Your task to perform on an android device: check battery use Image 0: 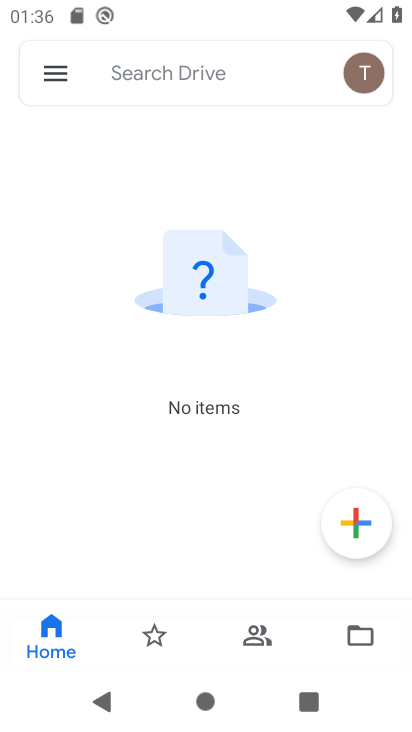
Step 0: press home button
Your task to perform on an android device: check battery use Image 1: 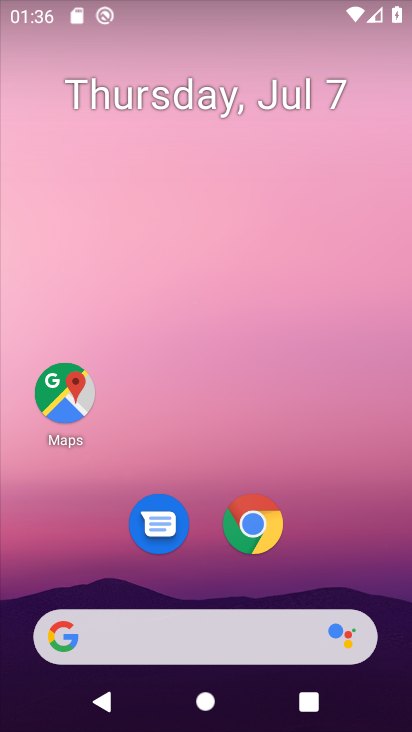
Step 1: drag from (308, 478) to (248, 11)
Your task to perform on an android device: check battery use Image 2: 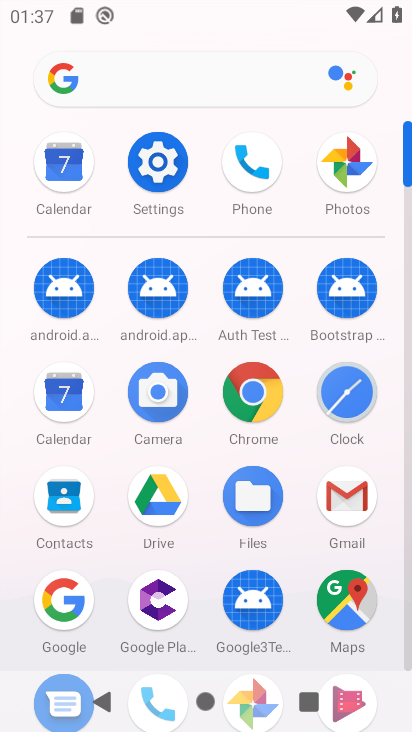
Step 2: click (175, 149)
Your task to perform on an android device: check battery use Image 3: 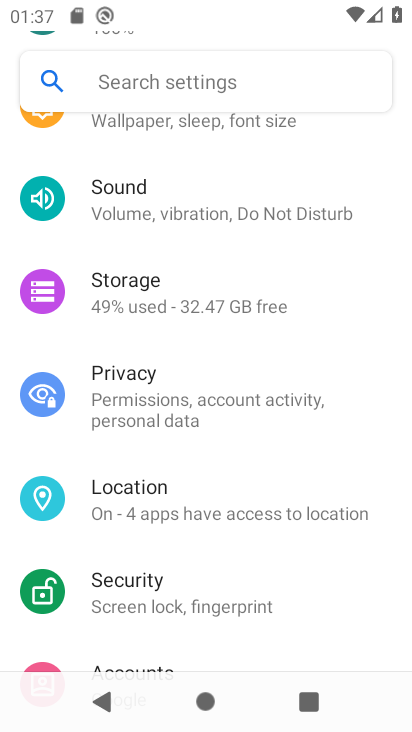
Step 3: drag from (213, 242) to (219, 609)
Your task to perform on an android device: check battery use Image 4: 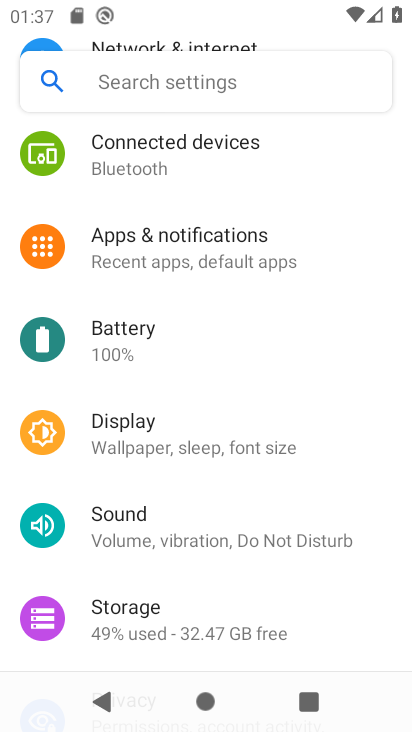
Step 4: click (131, 331)
Your task to perform on an android device: check battery use Image 5: 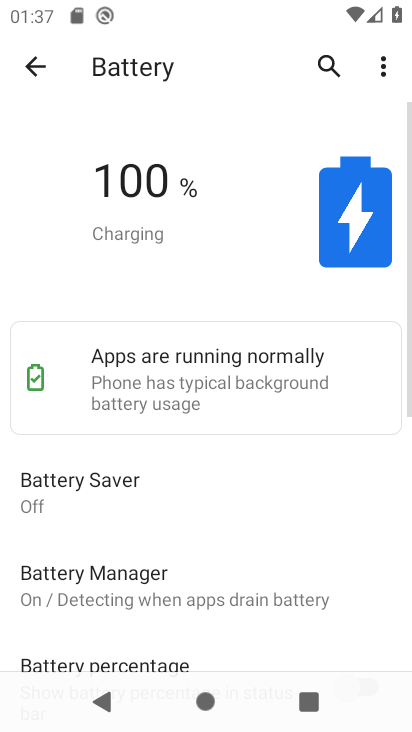
Step 5: click (369, 56)
Your task to perform on an android device: check battery use Image 6: 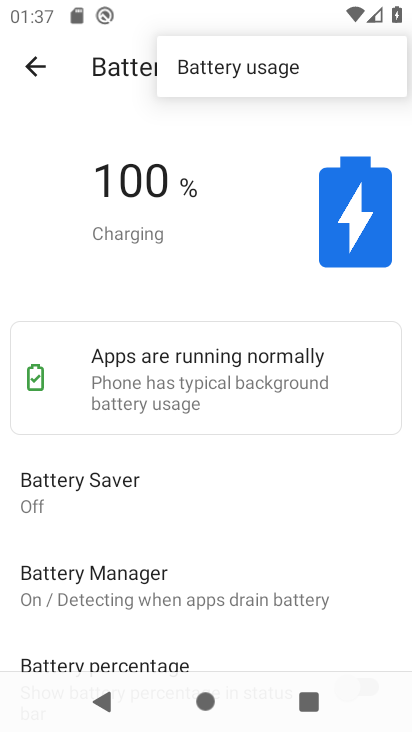
Step 6: click (299, 64)
Your task to perform on an android device: check battery use Image 7: 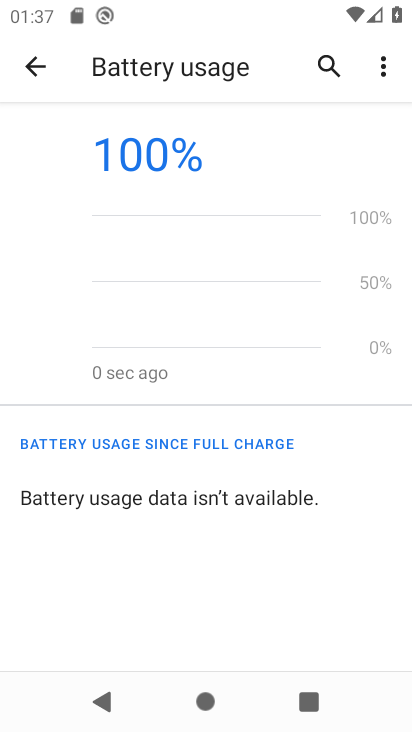
Step 7: task complete